Your task to perform on an android device: delete browsing data in the chrome app Image 0: 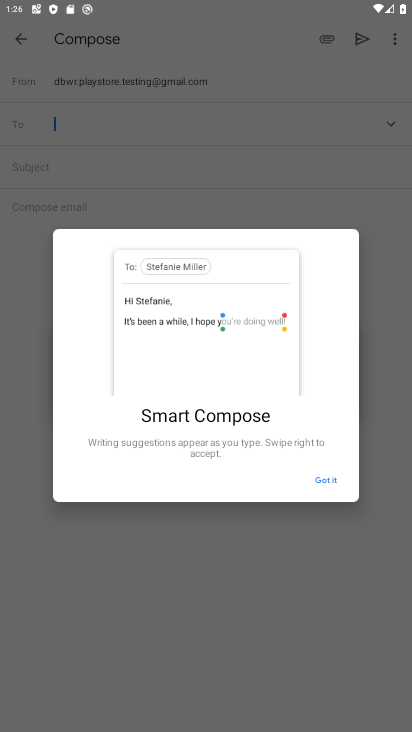
Step 0: press home button
Your task to perform on an android device: delete browsing data in the chrome app Image 1: 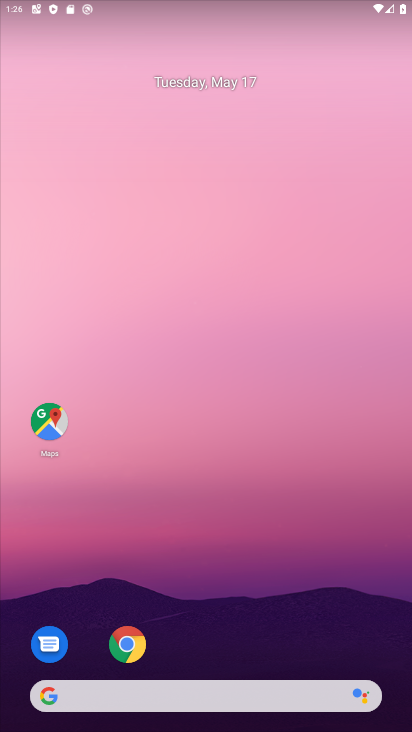
Step 1: click (130, 639)
Your task to perform on an android device: delete browsing data in the chrome app Image 2: 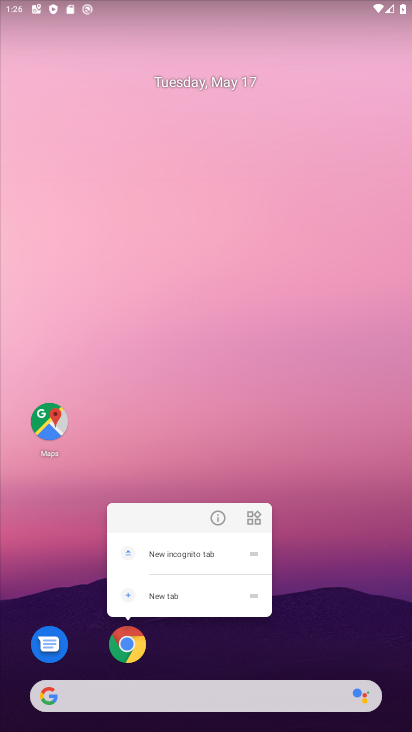
Step 2: click (130, 639)
Your task to perform on an android device: delete browsing data in the chrome app Image 3: 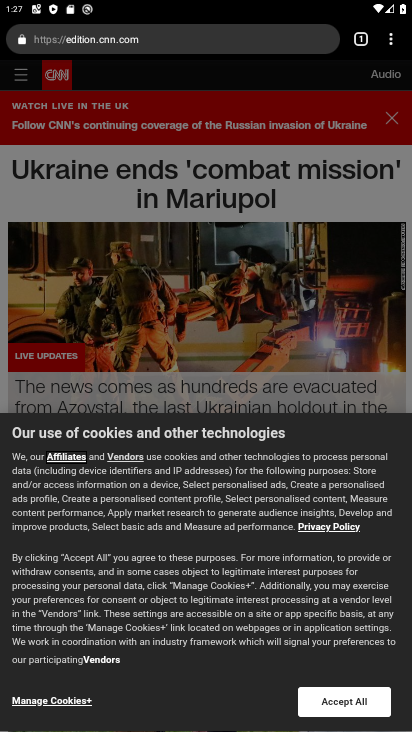
Step 3: click (389, 45)
Your task to perform on an android device: delete browsing data in the chrome app Image 4: 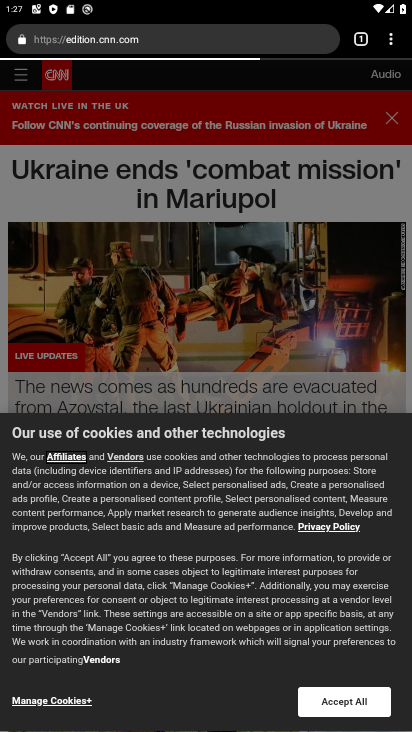
Step 4: drag from (388, 47) to (259, 228)
Your task to perform on an android device: delete browsing data in the chrome app Image 5: 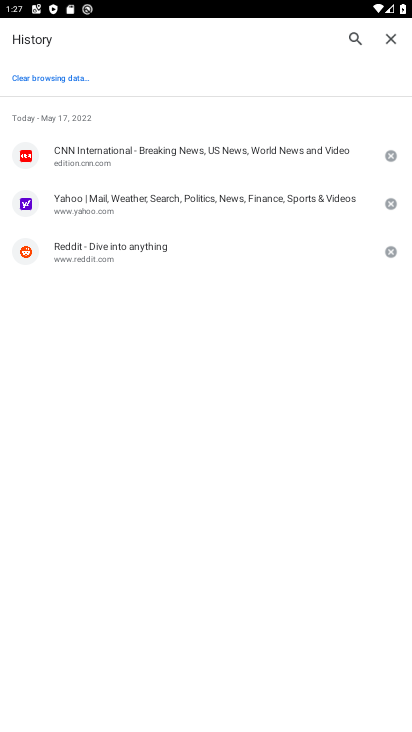
Step 5: click (52, 73)
Your task to perform on an android device: delete browsing data in the chrome app Image 6: 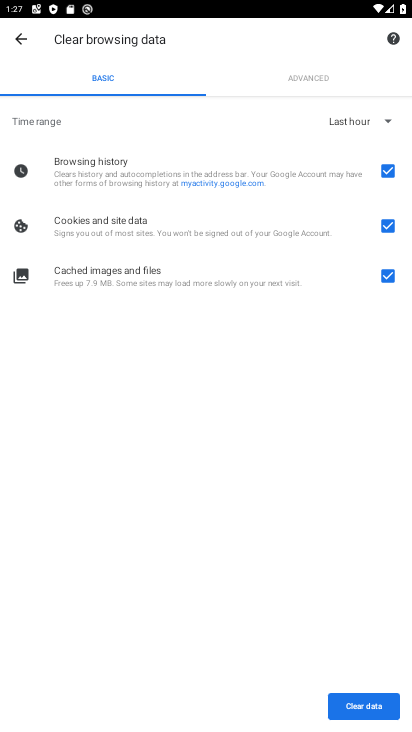
Step 6: click (369, 704)
Your task to perform on an android device: delete browsing data in the chrome app Image 7: 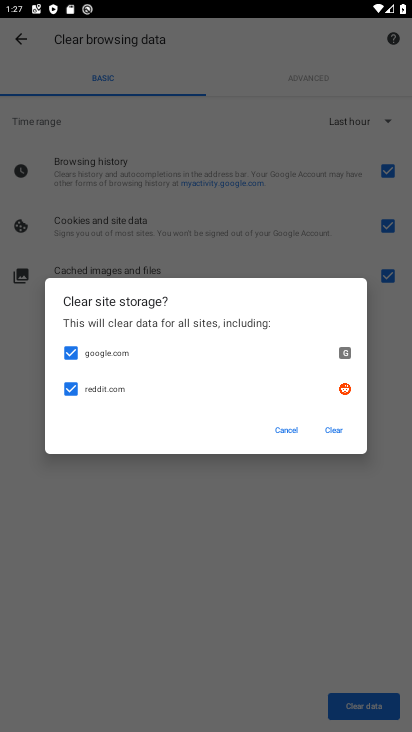
Step 7: click (329, 434)
Your task to perform on an android device: delete browsing data in the chrome app Image 8: 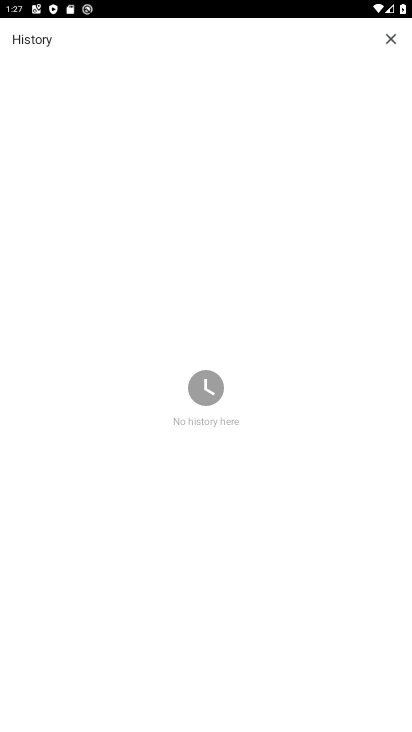
Step 8: task complete